Your task to perform on an android device: Go to calendar. Show me events next week Image 0: 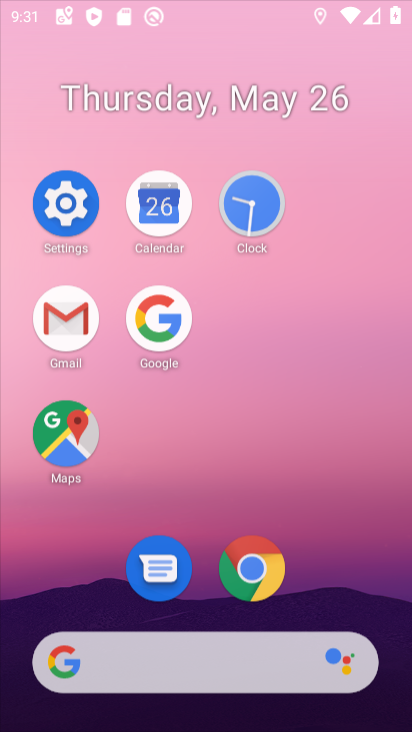
Step 0: click (77, 212)
Your task to perform on an android device: Go to calendar. Show me events next week Image 1: 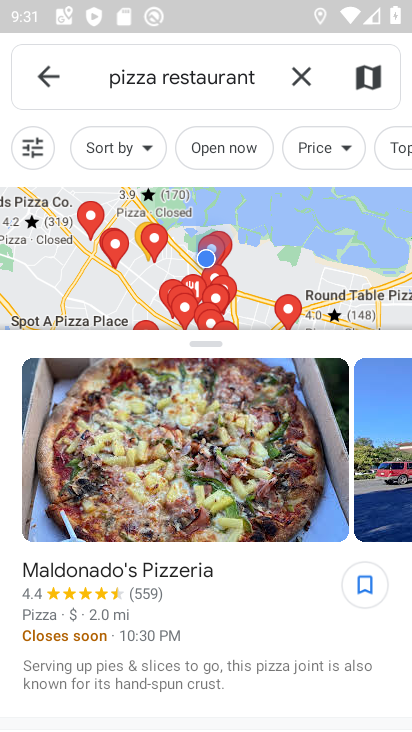
Step 1: press home button
Your task to perform on an android device: Go to calendar. Show me events next week Image 2: 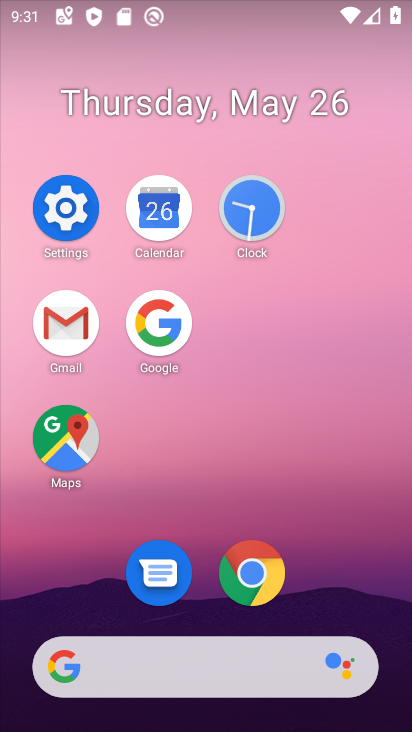
Step 2: click (156, 217)
Your task to perform on an android device: Go to calendar. Show me events next week Image 3: 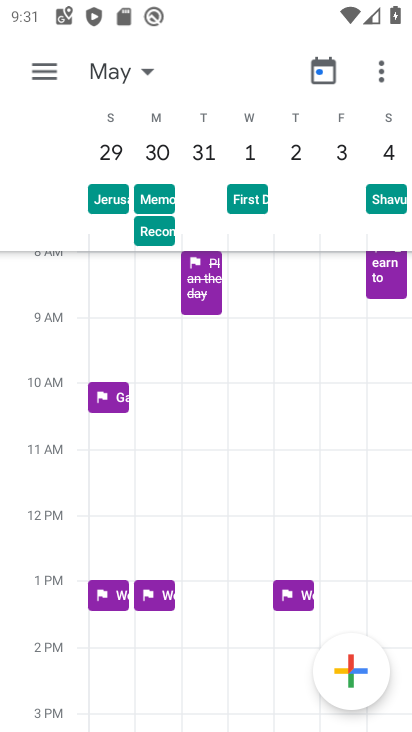
Step 3: click (24, 72)
Your task to perform on an android device: Go to calendar. Show me events next week Image 4: 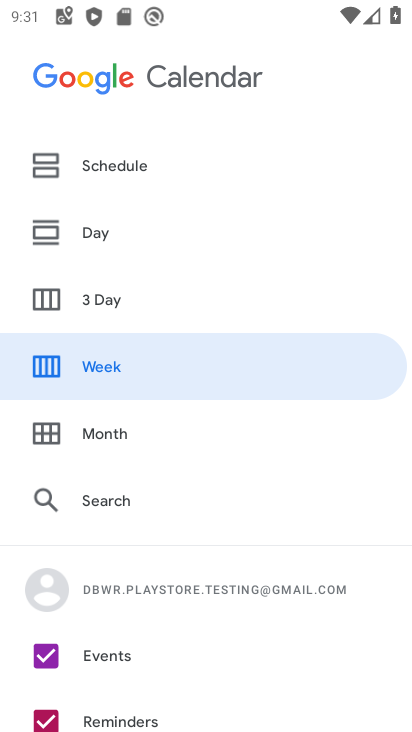
Step 4: click (122, 370)
Your task to perform on an android device: Go to calendar. Show me events next week Image 5: 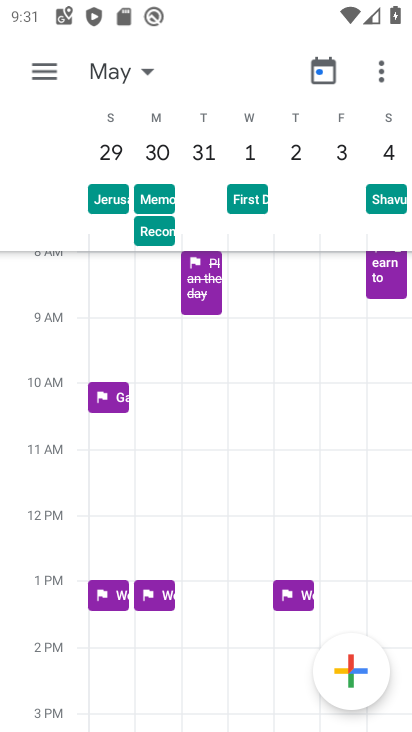
Step 5: task complete